Your task to perform on an android device: Show the shopping cart on newegg. Add dell xps to the cart on newegg Image 0: 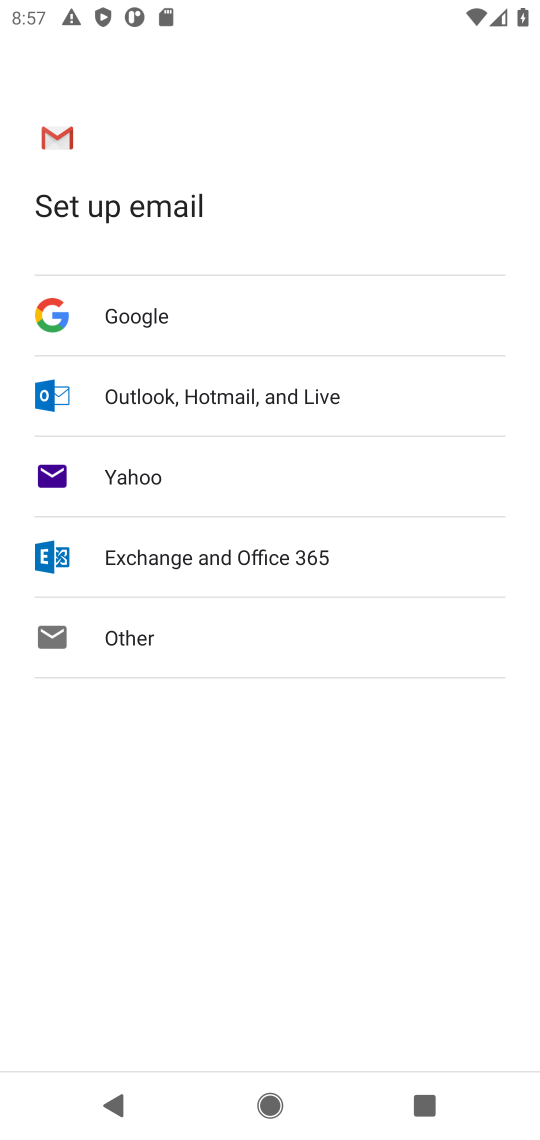
Step 0: press home button
Your task to perform on an android device: Show the shopping cart on newegg. Add dell xps to the cart on newegg Image 1: 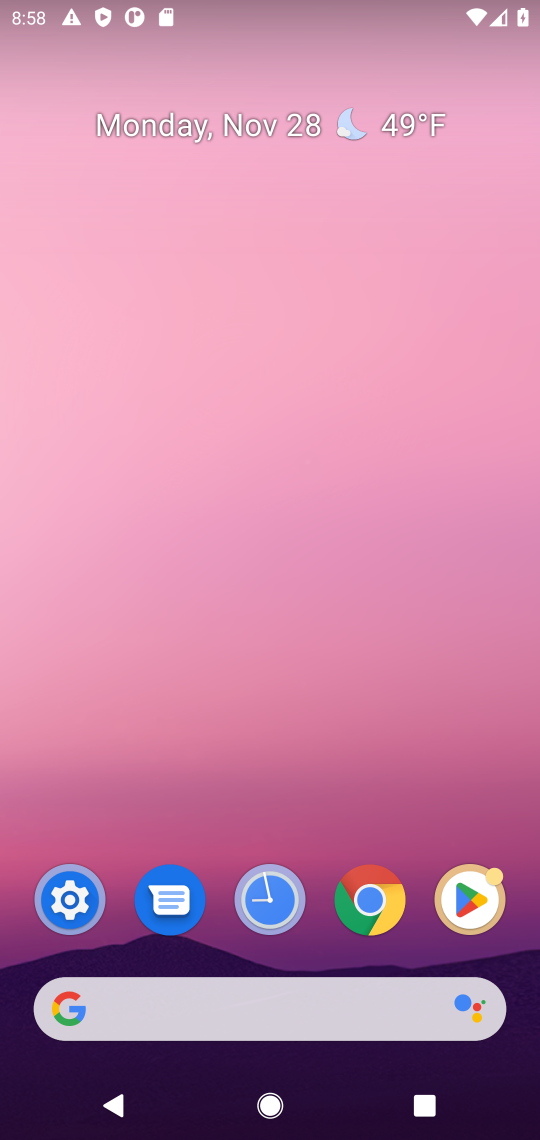
Step 1: click (154, 1031)
Your task to perform on an android device: Show the shopping cart on newegg. Add dell xps to the cart on newegg Image 2: 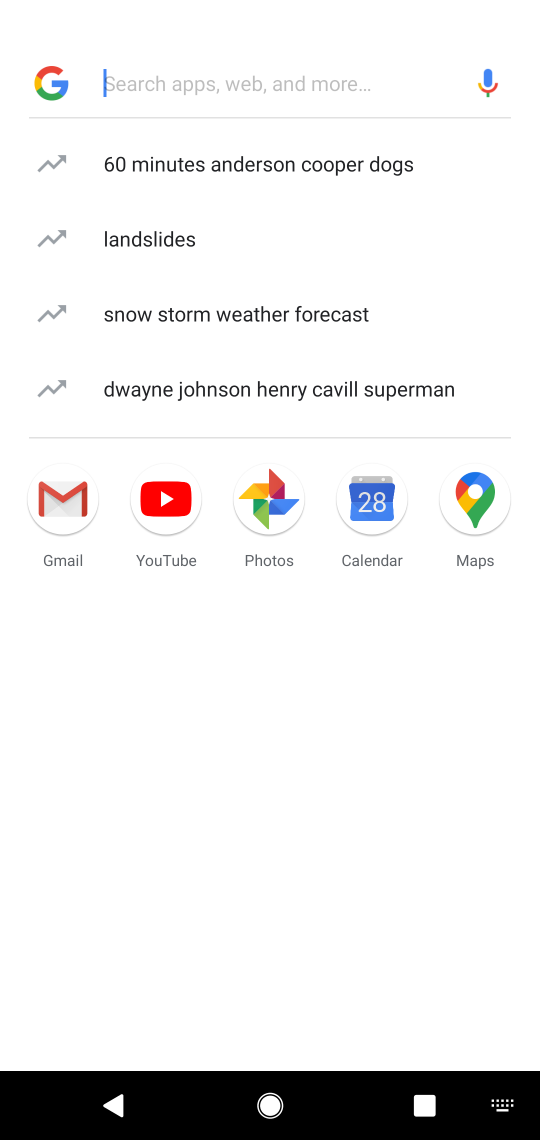
Step 2: type "newegg"
Your task to perform on an android device: Show the shopping cart on newegg. Add dell xps to the cart on newegg Image 3: 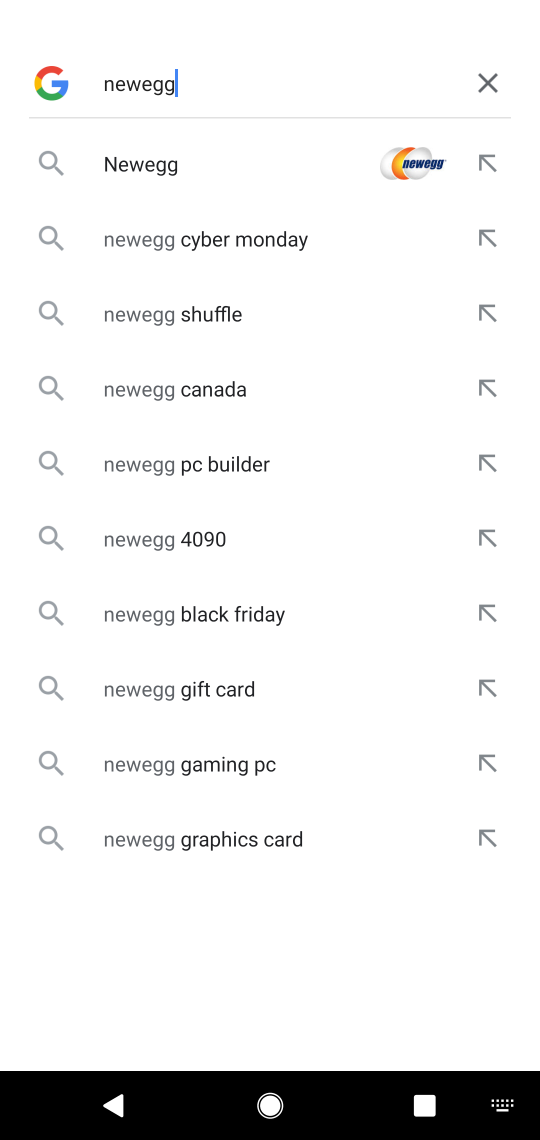
Step 3: click (204, 188)
Your task to perform on an android device: Show the shopping cart on newegg. Add dell xps to the cart on newegg Image 4: 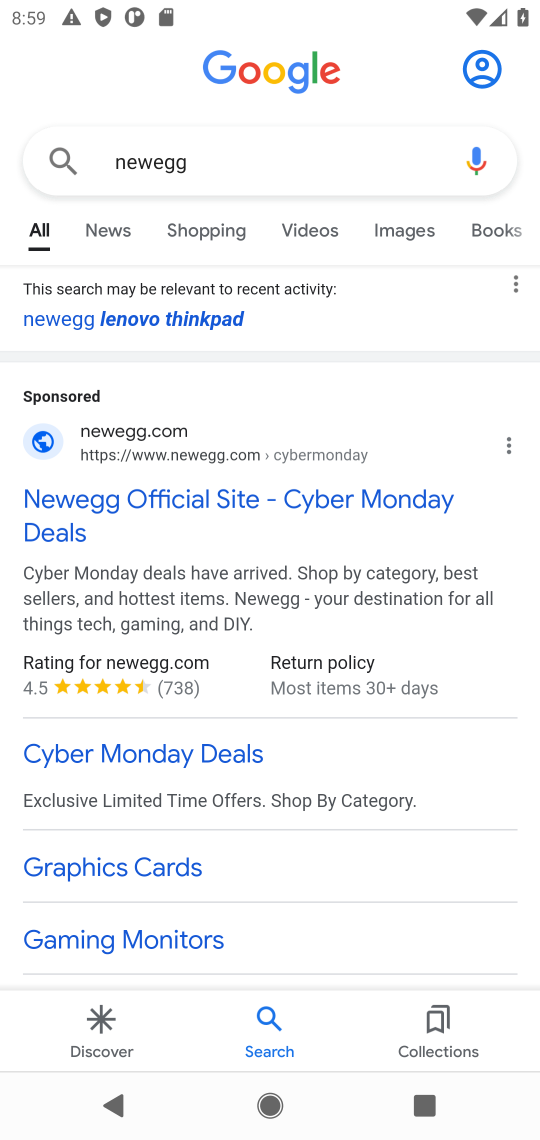
Step 4: click (50, 486)
Your task to perform on an android device: Show the shopping cart on newegg. Add dell xps to the cart on newegg Image 5: 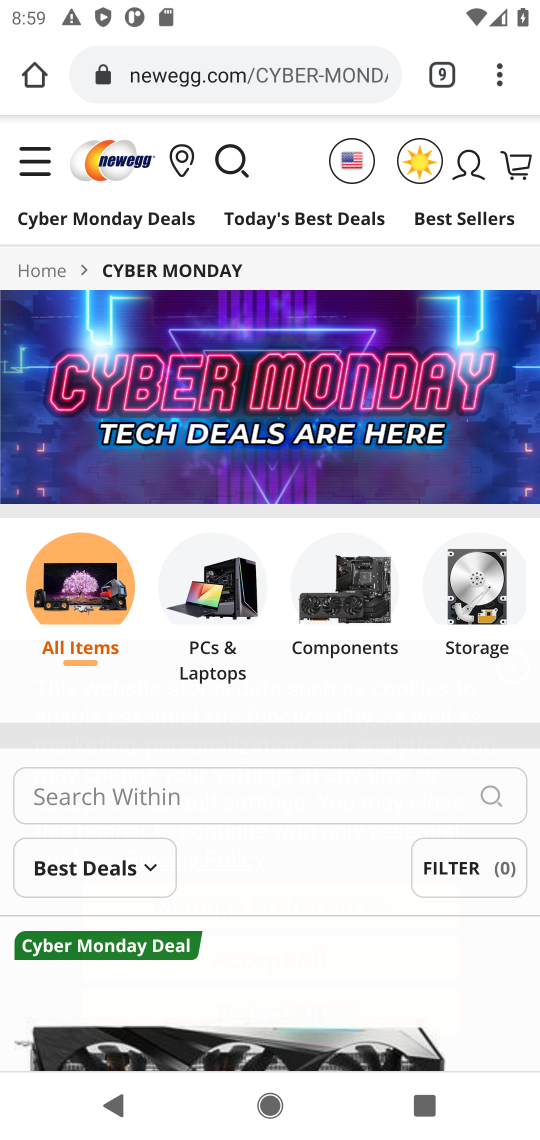
Step 5: click (232, 153)
Your task to perform on an android device: Show the shopping cart on newegg. Add dell xps to the cart on newegg Image 6: 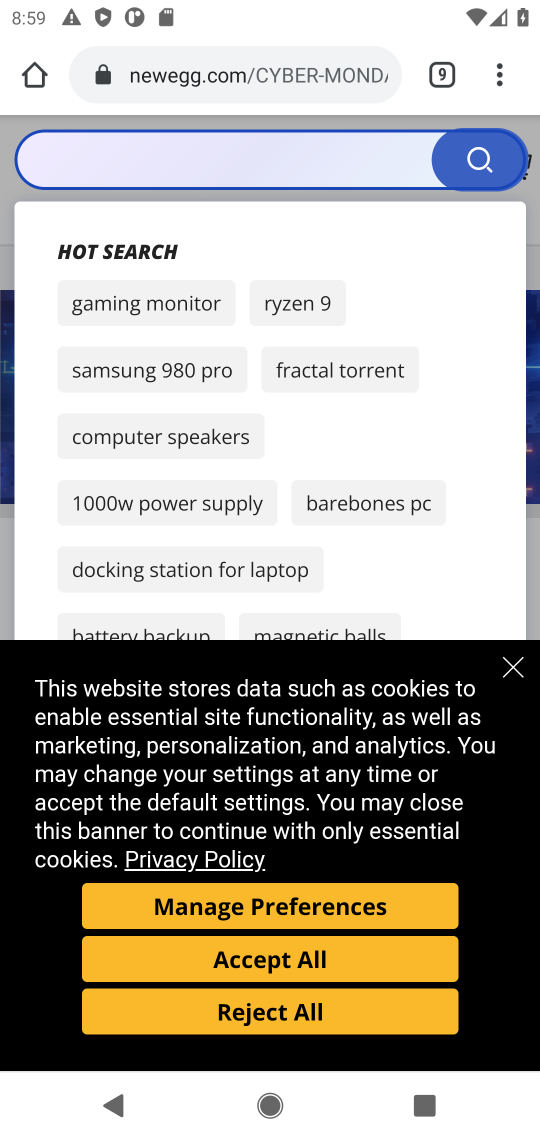
Step 6: type "dell xps"
Your task to perform on an android device: Show the shopping cart on newegg. Add dell xps to the cart on newegg Image 7: 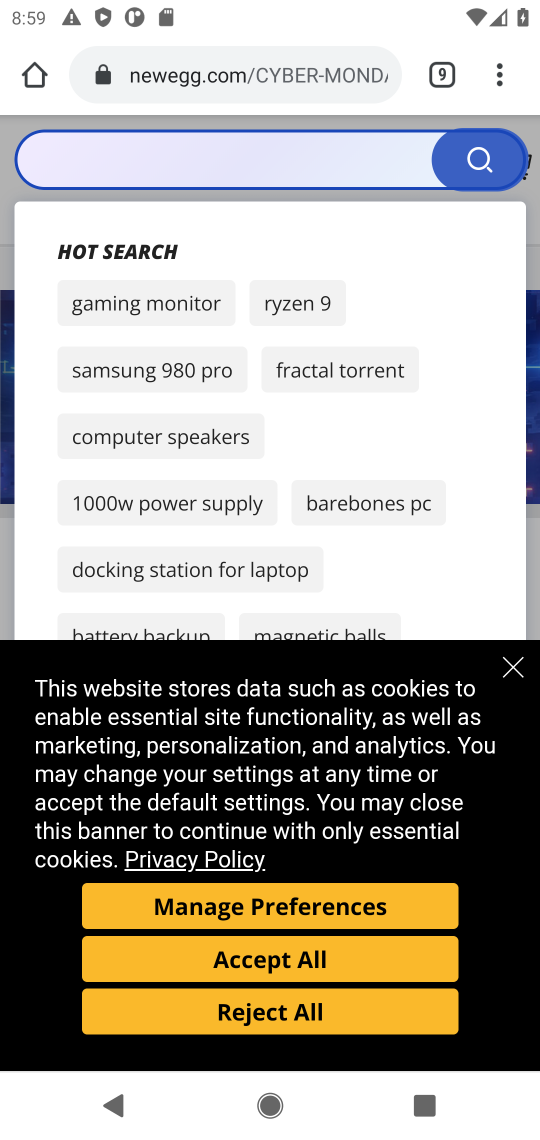
Step 7: click (183, 146)
Your task to perform on an android device: Show the shopping cart on newegg. Add dell xps to the cart on newegg Image 8: 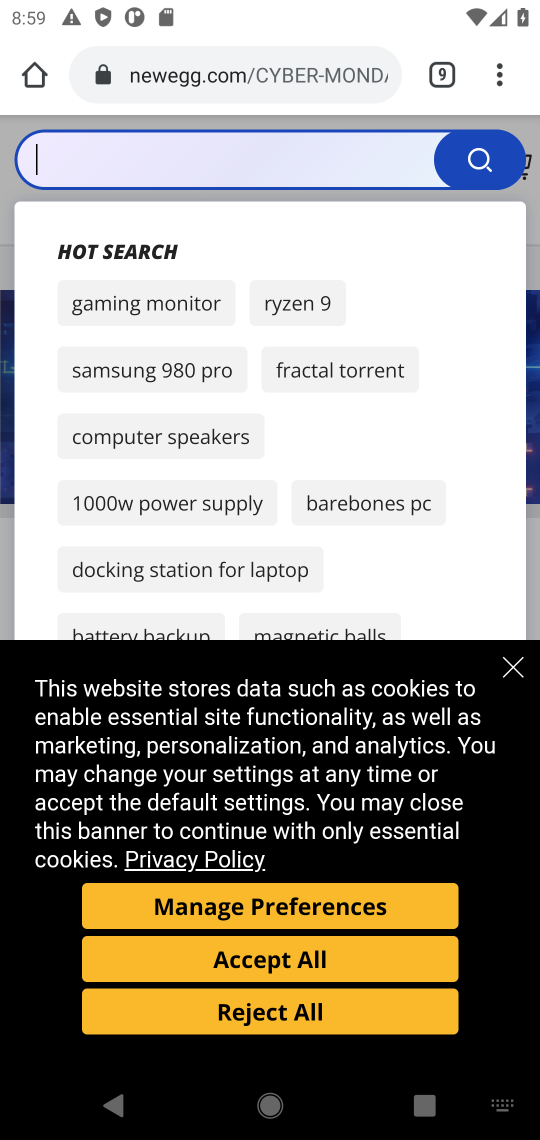
Step 8: type "dell xps"
Your task to perform on an android device: Show the shopping cart on newegg. Add dell xps to the cart on newegg Image 9: 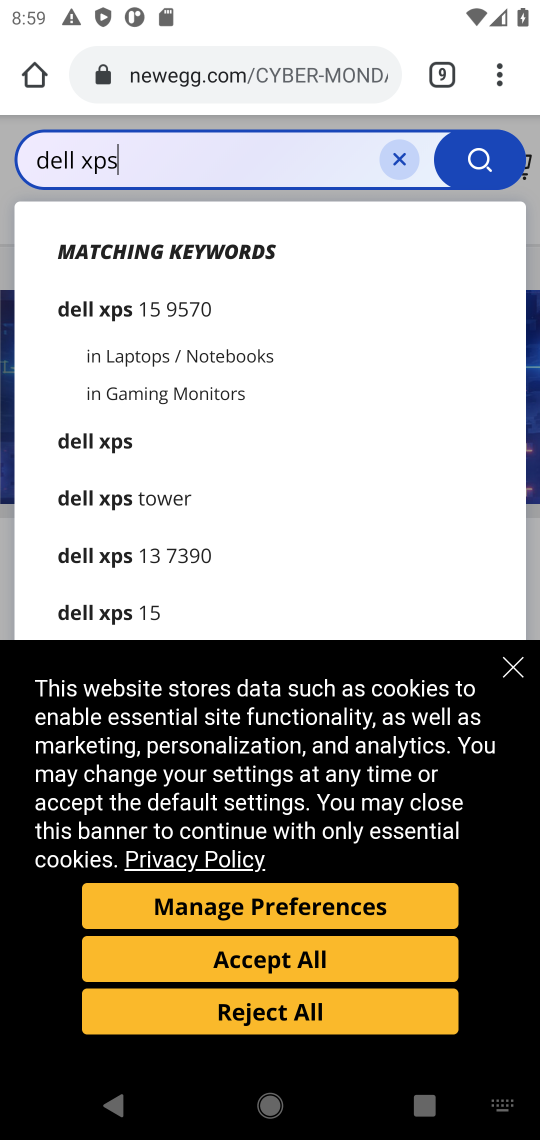
Step 9: click (74, 323)
Your task to perform on an android device: Show the shopping cart on newegg. Add dell xps to the cart on newegg Image 10: 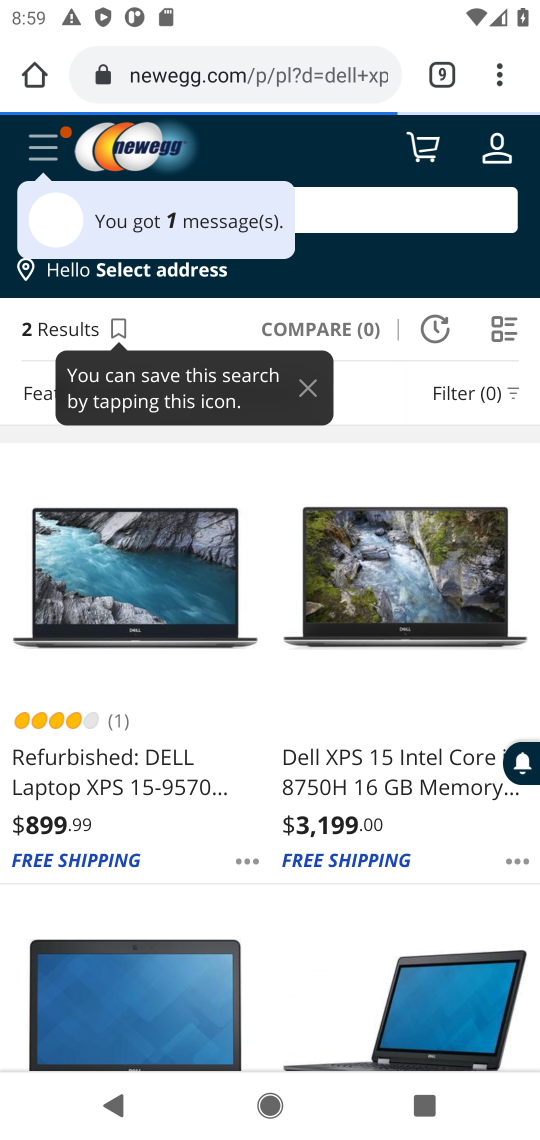
Step 10: task complete